Your task to perform on an android device: turn notification dots off Image 0: 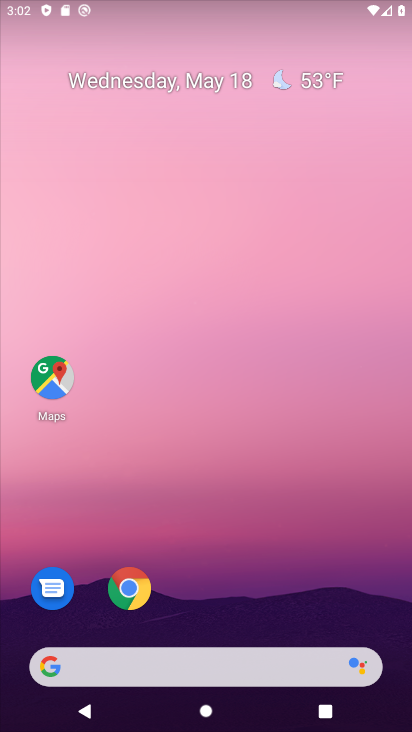
Step 0: press home button
Your task to perform on an android device: turn notification dots off Image 1: 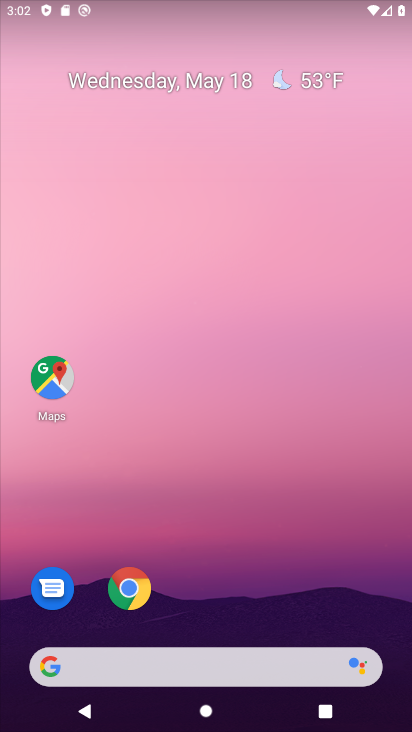
Step 1: drag from (346, 578) to (345, 129)
Your task to perform on an android device: turn notification dots off Image 2: 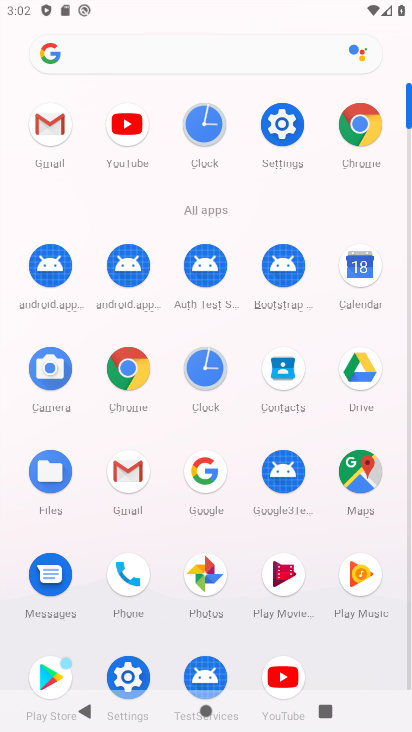
Step 2: click (113, 656)
Your task to perform on an android device: turn notification dots off Image 3: 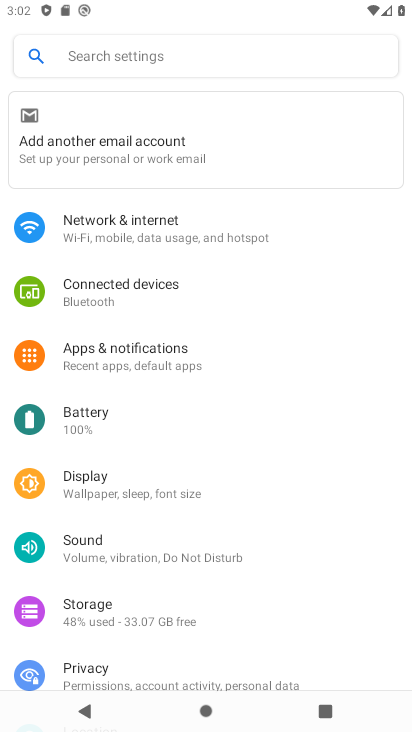
Step 3: drag from (221, 621) to (327, 144)
Your task to perform on an android device: turn notification dots off Image 4: 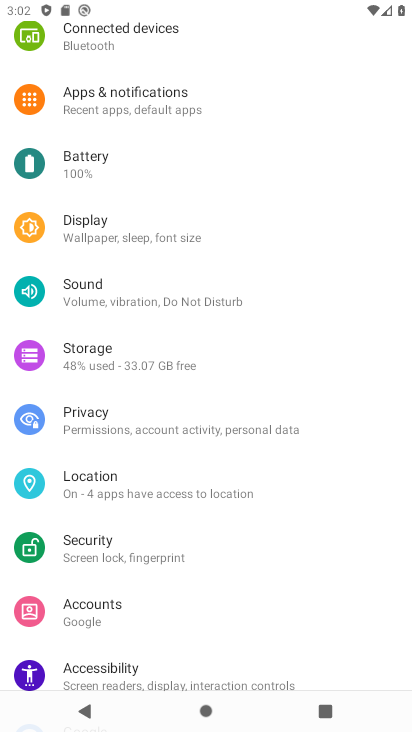
Step 4: click (224, 500)
Your task to perform on an android device: turn notification dots off Image 5: 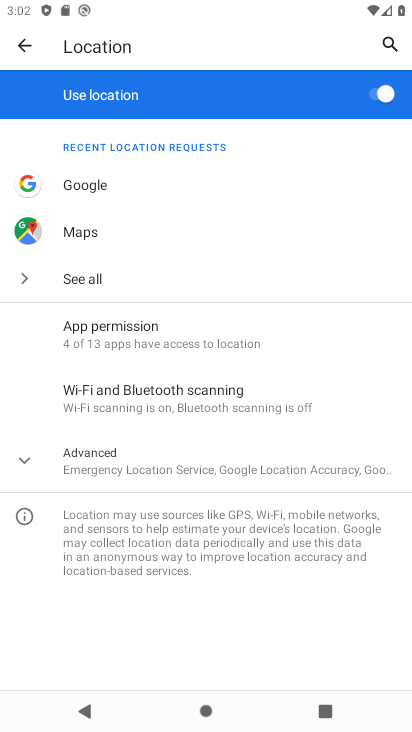
Step 5: click (125, 465)
Your task to perform on an android device: turn notification dots off Image 6: 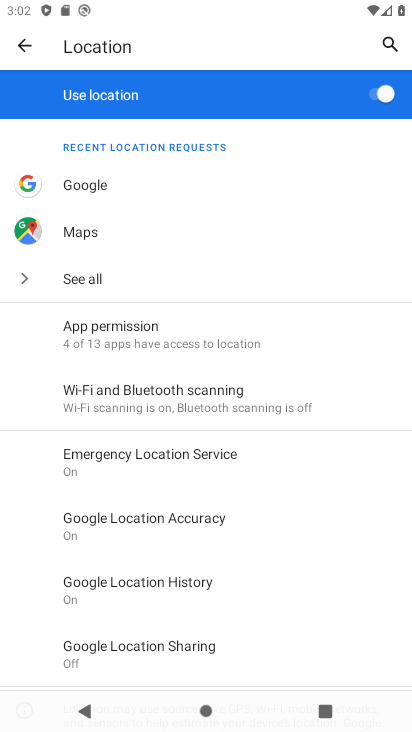
Step 6: click (18, 36)
Your task to perform on an android device: turn notification dots off Image 7: 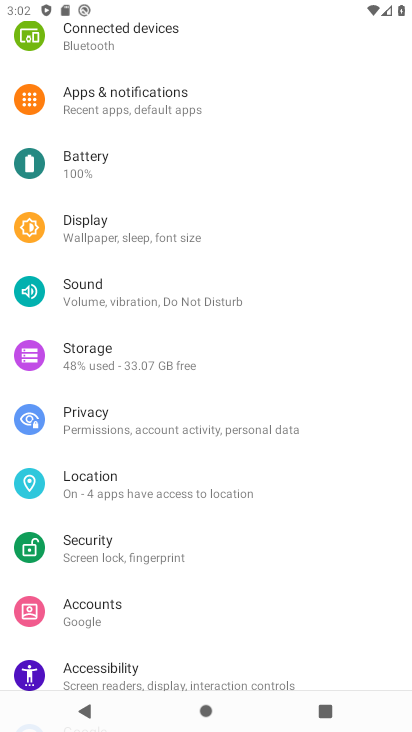
Step 7: drag from (170, 405) to (21, 731)
Your task to perform on an android device: turn notification dots off Image 8: 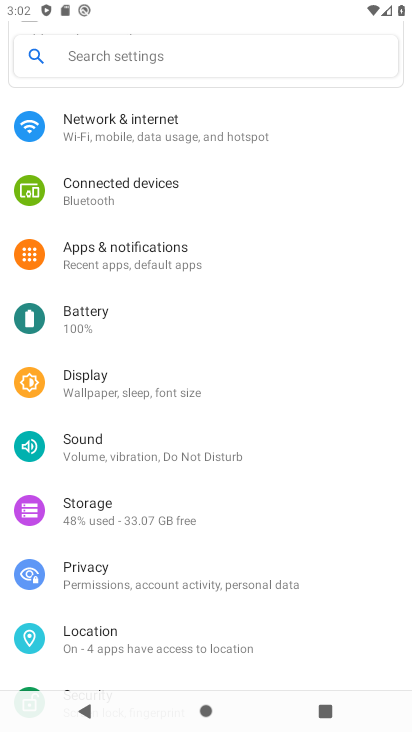
Step 8: click (157, 252)
Your task to perform on an android device: turn notification dots off Image 9: 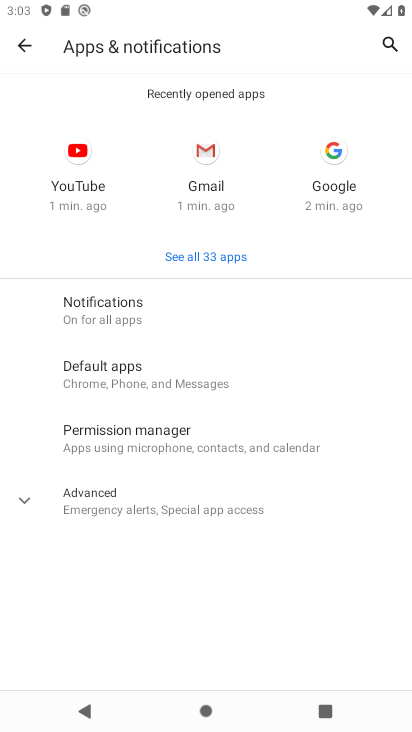
Step 9: click (117, 308)
Your task to perform on an android device: turn notification dots off Image 10: 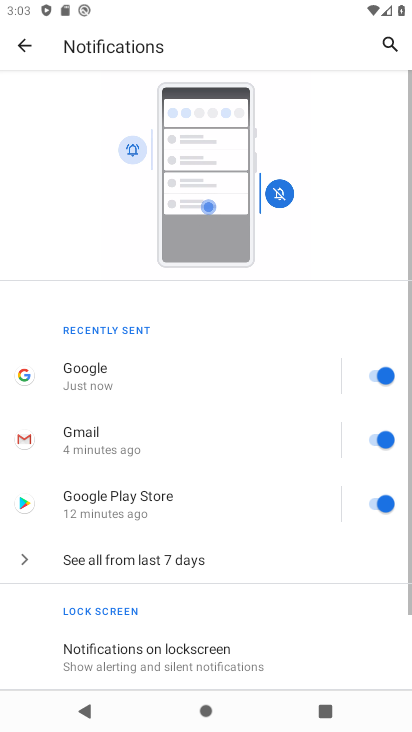
Step 10: drag from (152, 374) to (186, 103)
Your task to perform on an android device: turn notification dots off Image 11: 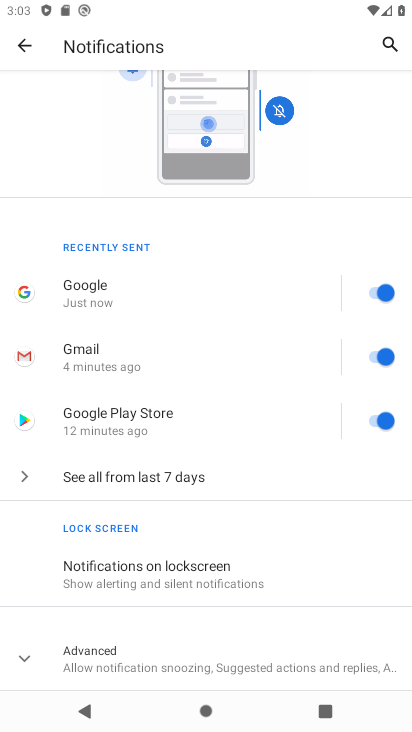
Step 11: click (136, 648)
Your task to perform on an android device: turn notification dots off Image 12: 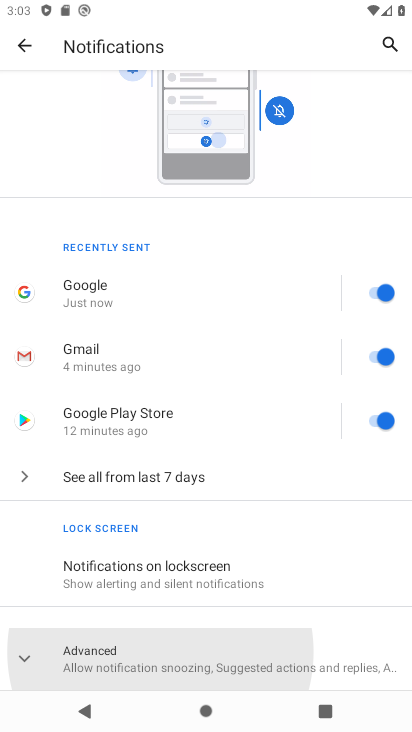
Step 12: drag from (136, 648) to (398, 230)
Your task to perform on an android device: turn notification dots off Image 13: 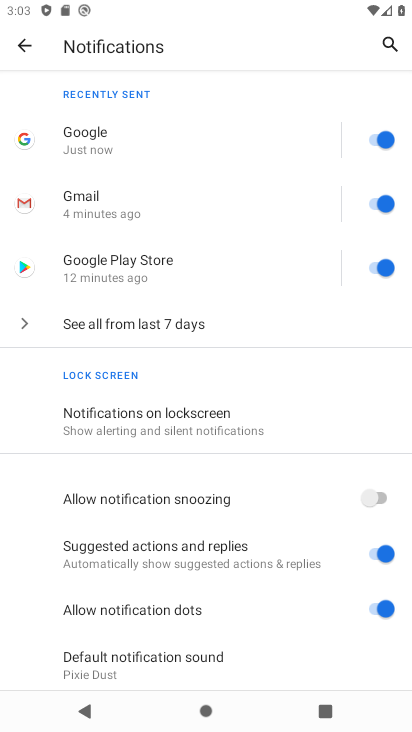
Step 13: click (230, 614)
Your task to perform on an android device: turn notification dots off Image 14: 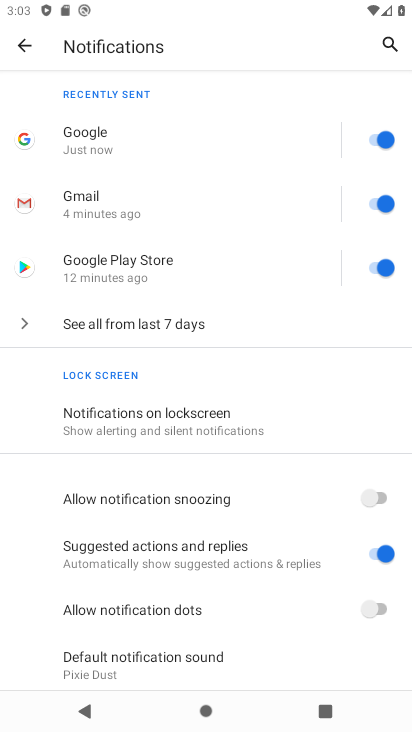
Step 14: task complete